Your task to perform on an android device: What is the recent news? Image 0: 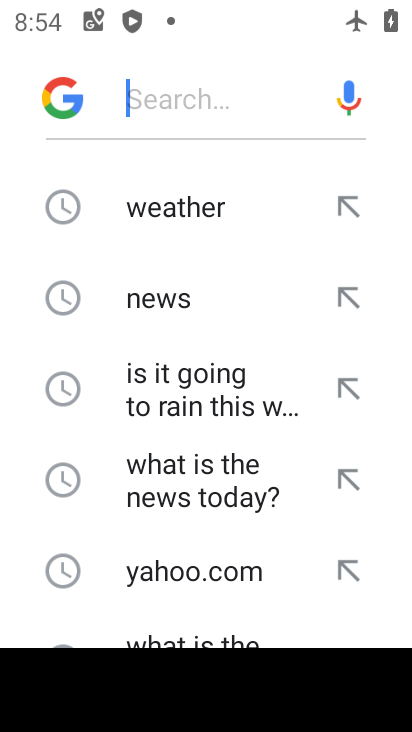
Step 0: click (191, 297)
Your task to perform on an android device: What is the recent news? Image 1: 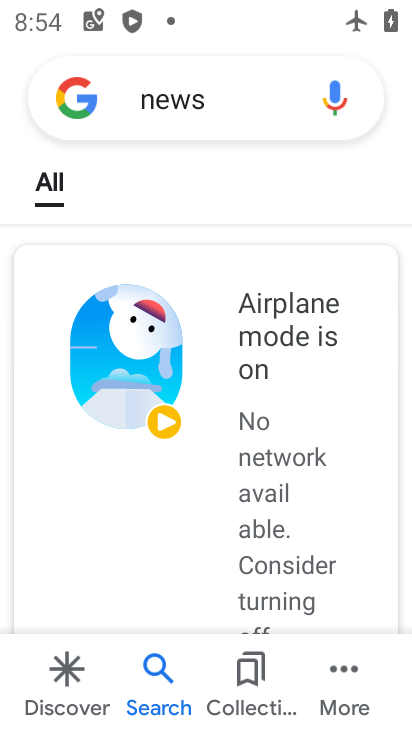
Step 1: task complete